Your task to perform on an android device: Open Yahoo.com Image 0: 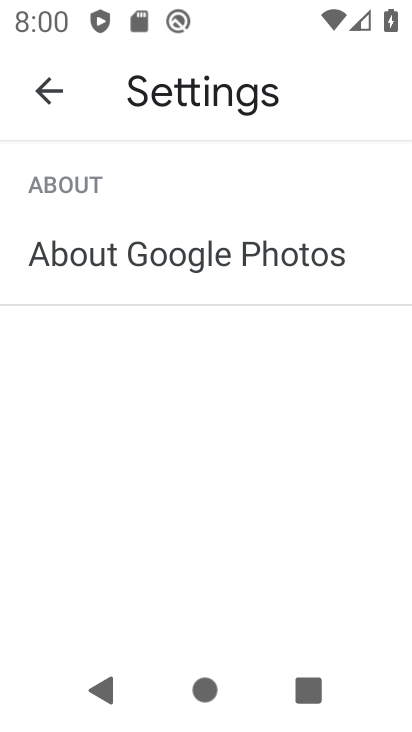
Step 0: press back button
Your task to perform on an android device: Open Yahoo.com Image 1: 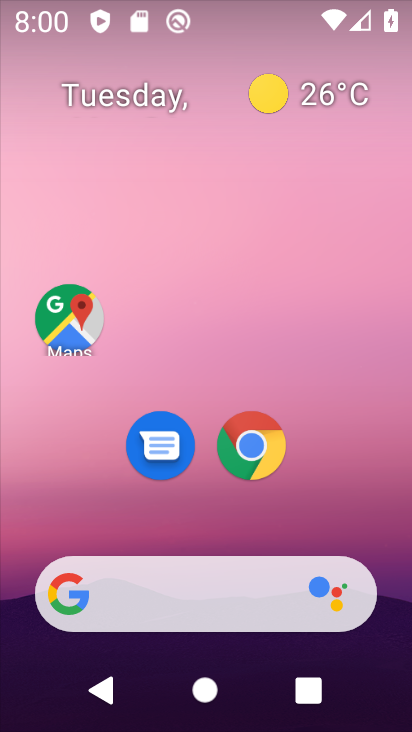
Step 1: click (253, 445)
Your task to perform on an android device: Open Yahoo.com Image 2: 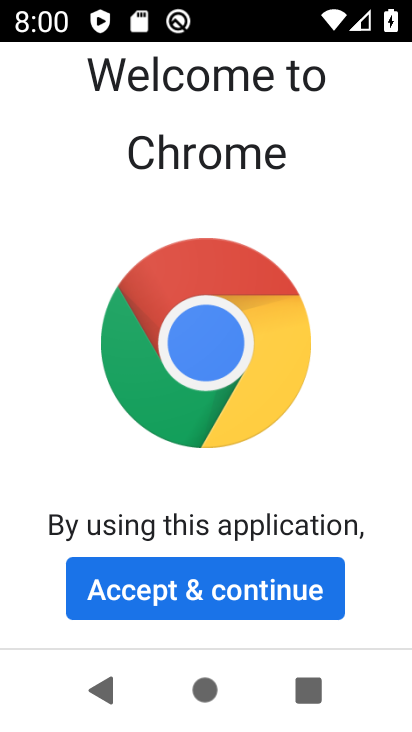
Step 2: click (204, 592)
Your task to perform on an android device: Open Yahoo.com Image 3: 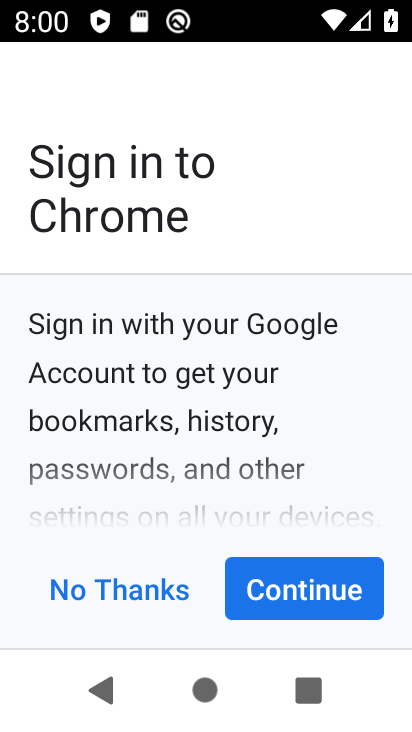
Step 3: click (297, 592)
Your task to perform on an android device: Open Yahoo.com Image 4: 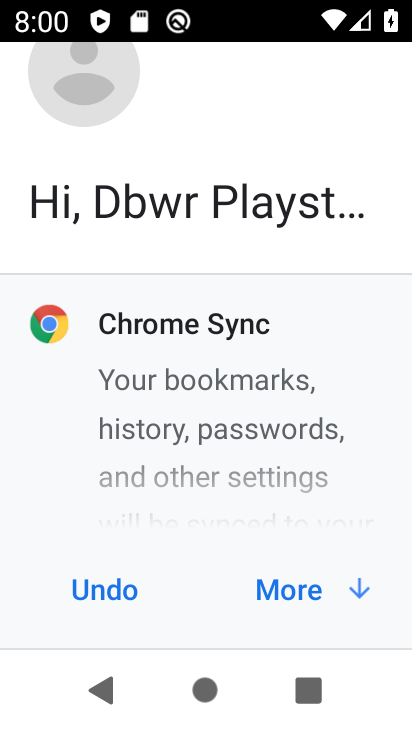
Step 4: click (297, 592)
Your task to perform on an android device: Open Yahoo.com Image 5: 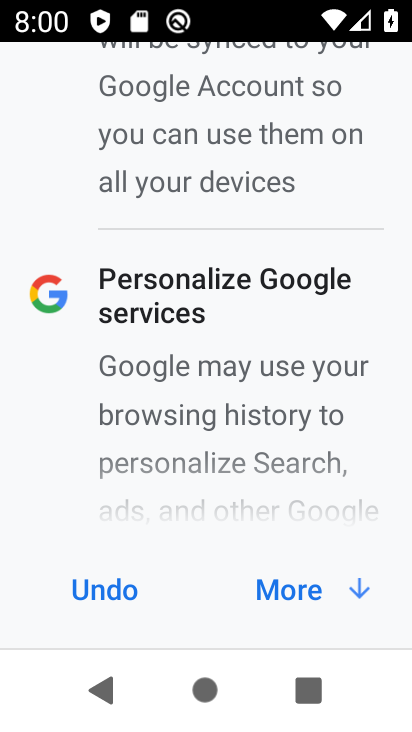
Step 5: click (297, 592)
Your task to perform on an android device: Open Yahoo.com Image 6: 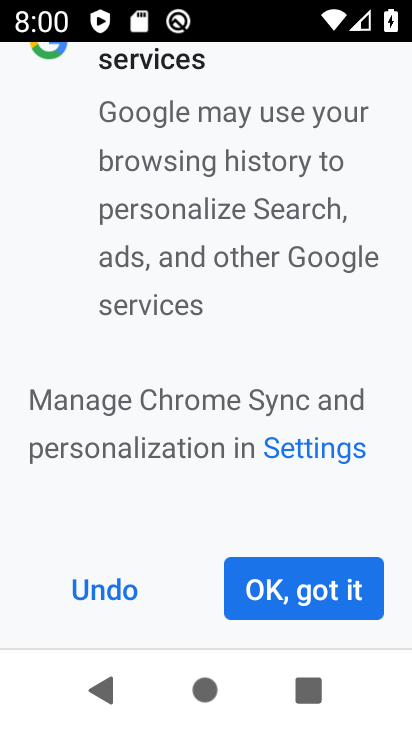
Step 6: click (297, 592)
Your task to perform on an android device: Open Yahoo.com Image 7: 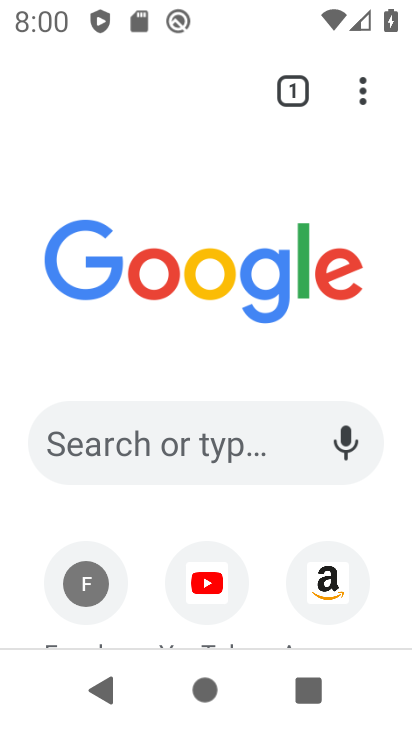
Step 7: click (210, 449)
Your task to perform on an android device: Open Yahoo.com Image 8: 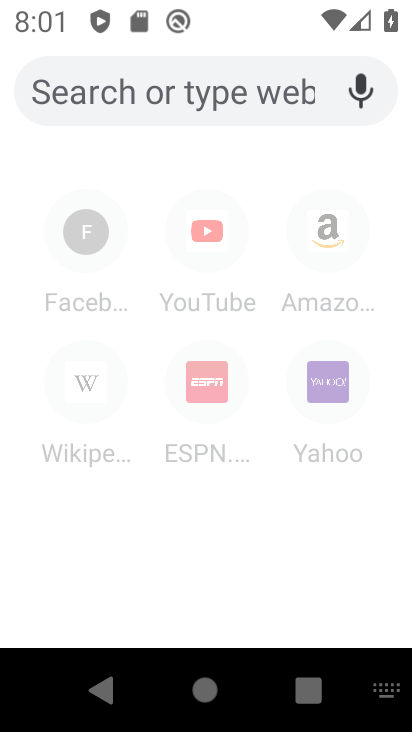
Step 8: type "Yahoo.com"
Your task to perform on an android device: Open Yahoo.com Image 9: 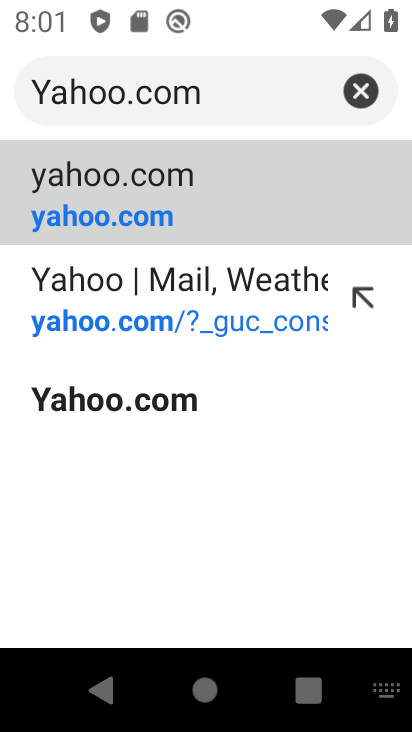
Step 9: click (183, 412)
Your task to perform on an android device: Open Yahoo.com Image 10: 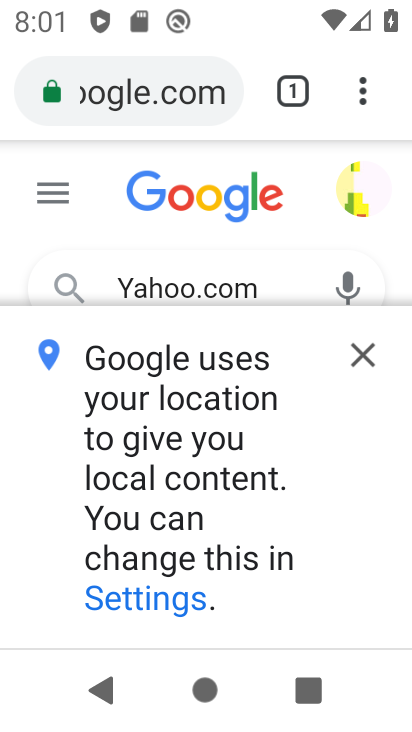
Step 10: click (363, 352)
Your task to perform on an android device: Open Yahoo.com Image 11: 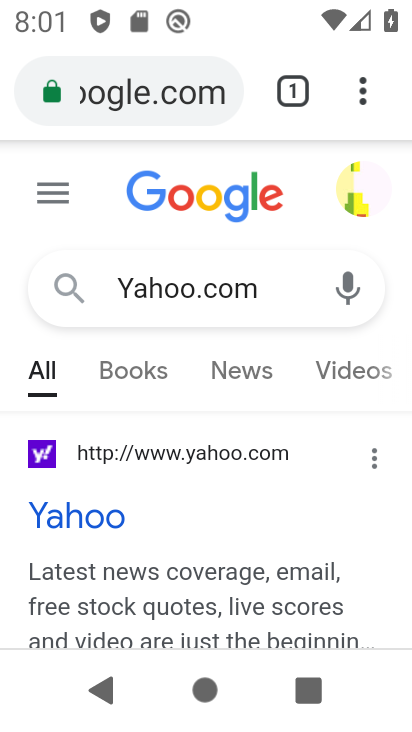
Step 11: click (191, 465)
Your task to perform on an android device: Open Yahoo.com Image 12: 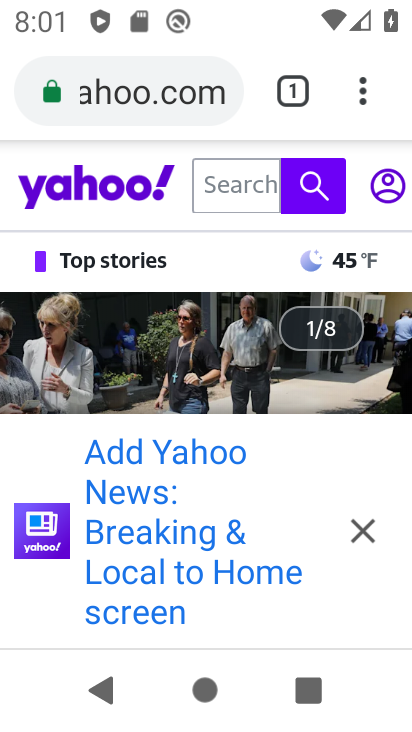
Step 12: task complete